Your task to perform on an android device: Open calendar and show me the first week of next month Image 0: 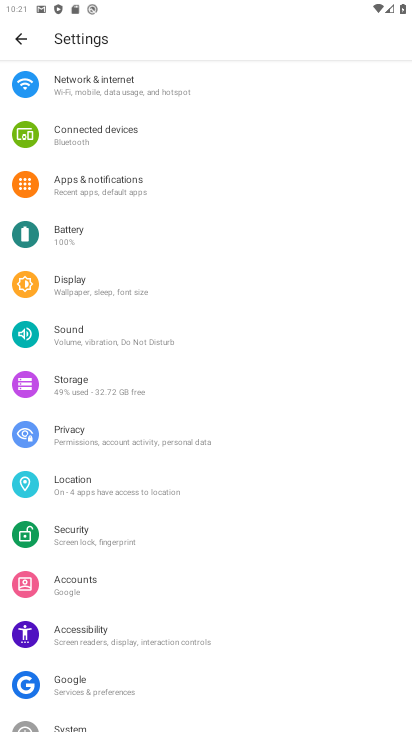
Step 0: press home button
Your task to perform on an android device: Open calendar and show me the first week of next month Image 1: 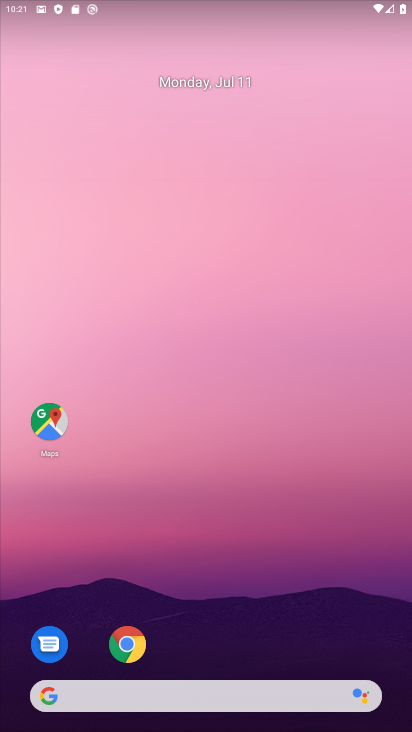
Step 1: drag from (217, 665) to (215, 220)
Your task to perform on an android device: Open calendar and show me the first week of next month Image 2: 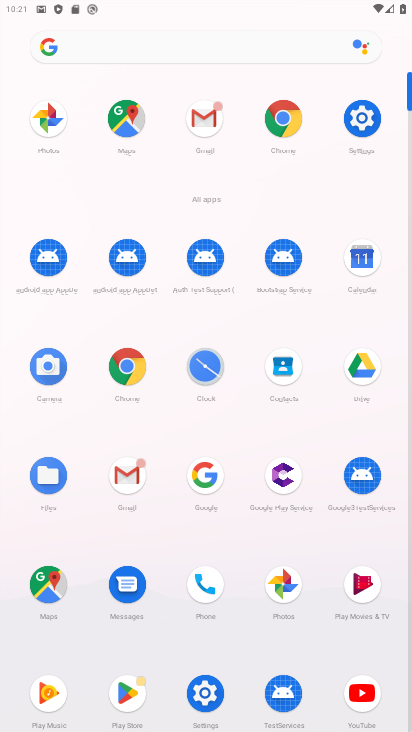
Step 2: click (348, 263)
Your task to perform on an android device: Open calendar and show me the first week of next month Image 3: 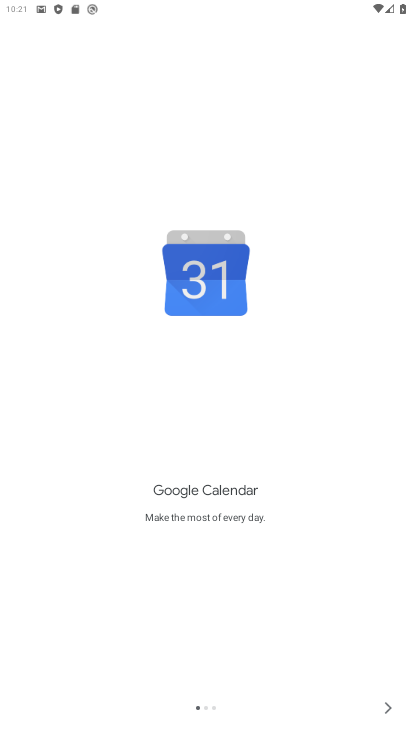
Step 3: click (400, 703)
Your task to perform on an android device: Open calendar and show me the first week of next month Image 4: 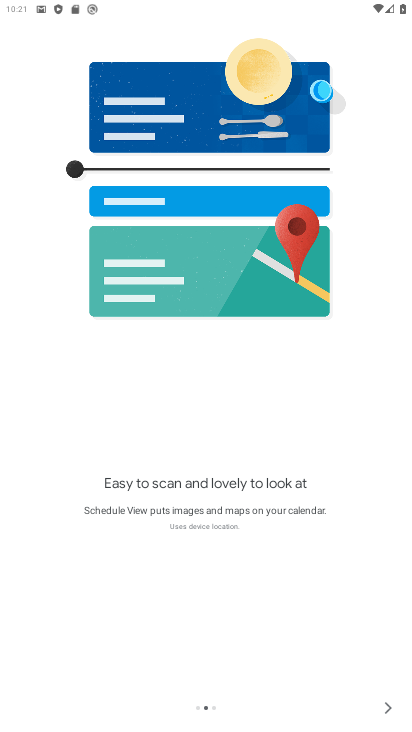
Step 4: click (400, 703)
Your task to perform on an android device: Open calendar and show me the first week of next month Image 5: 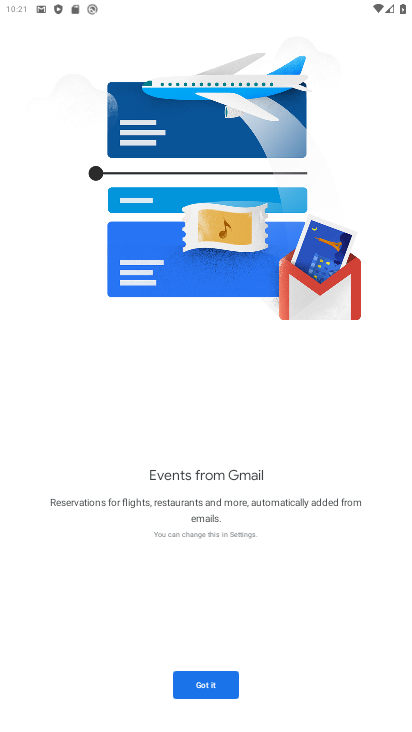
Step 5: click (209, 683)
Your task to perform on an android device: Open calendar and show me the first week of next month Image 6: 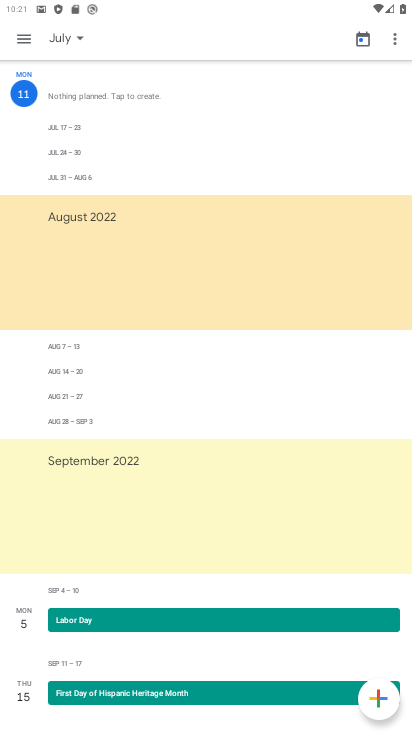
Step 6: click (19, 34)
Your task to perform on an android device: Open calendar and show me the first week of next month Image 7: 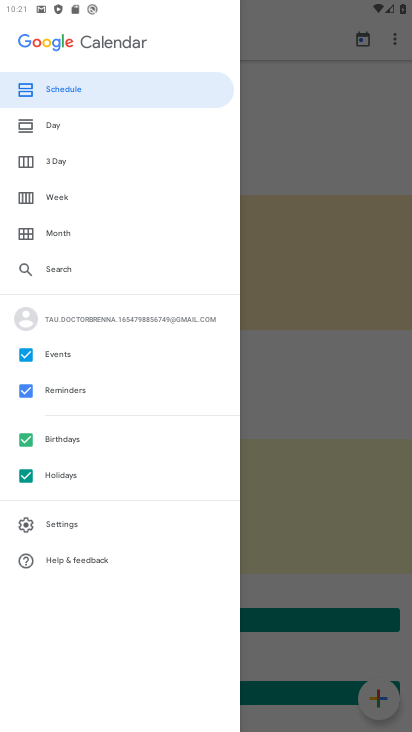
Step 7: click (69, 236)
Your task to perform on an android device: Open calendar and show me the first week of next month Image 8: 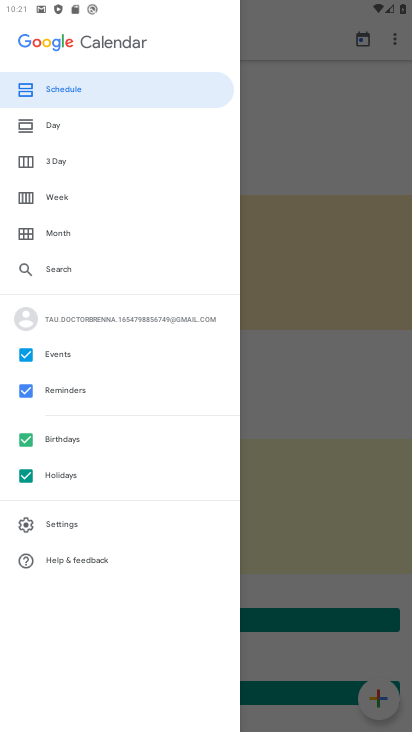
Step 8: click (71, 236)
Your task to perform on an android device: Open calendar and show me the first week of next month Image 9: 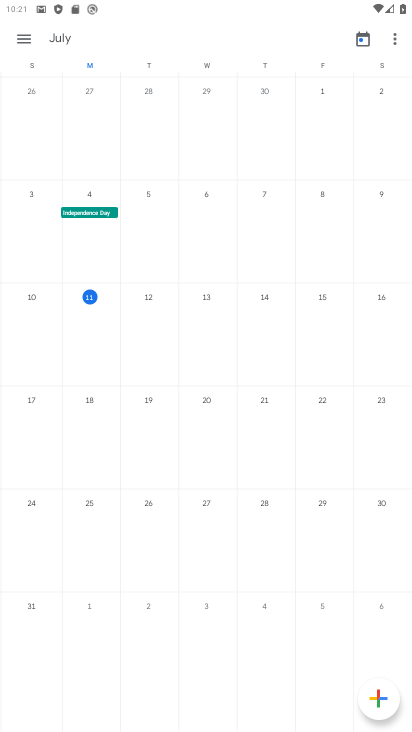
Step 9: task complete